Your task to perform on an android device: Is it going to rain this weekend? Image 0: 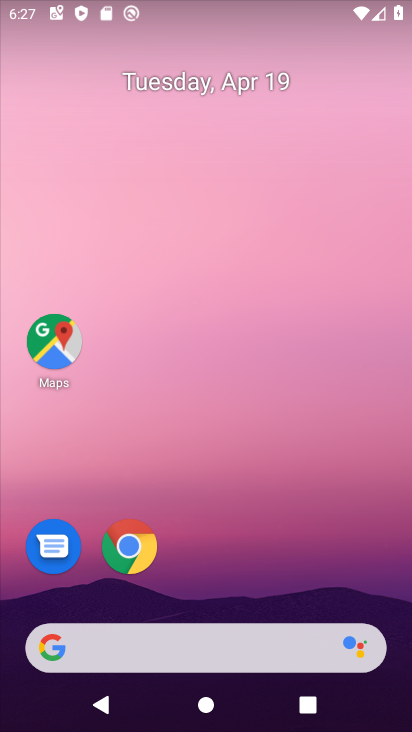
Step 0: drag from (270, 597) to (278, 133)
Your task to perform on an android device: Is it going to rain this weekend? Image 1: 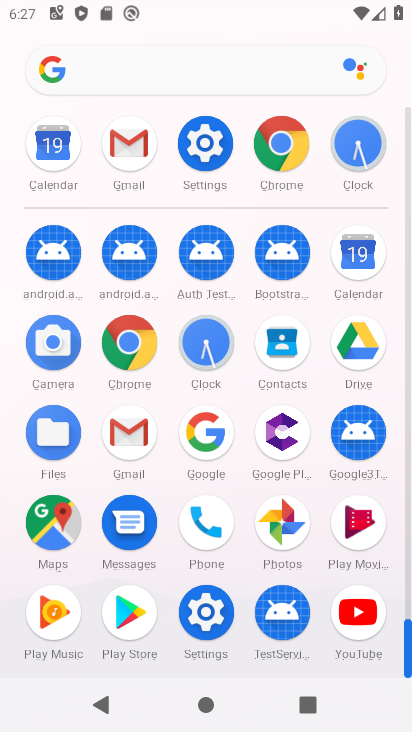
Step 1: click (137, 331)
Your task to perform on an android device: Is it going to rain this weekend? Image 2: 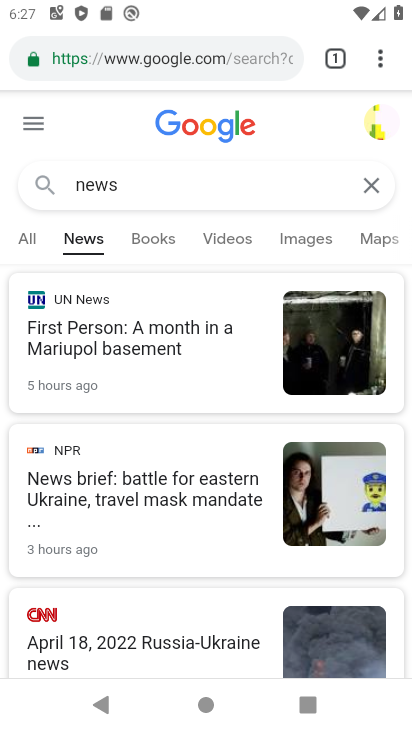
Step 2: click (263, 181)
Your task to perform on an android device: Is it going to rain this weekend? Image 3: 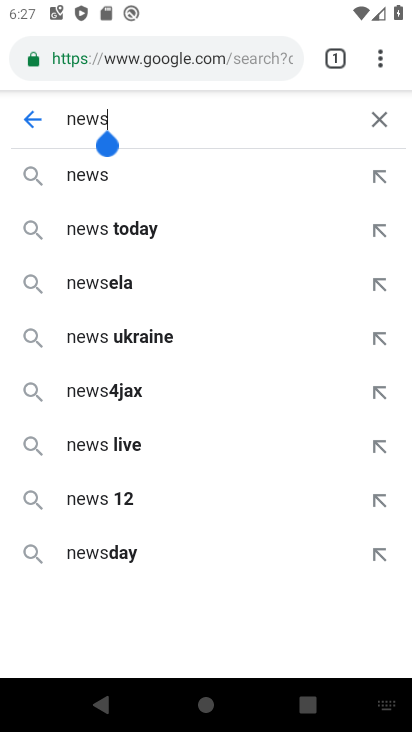
Step 3: click (377, 121)
Your task to perform on an android device: Is it going to rain this weekend? Image 4: 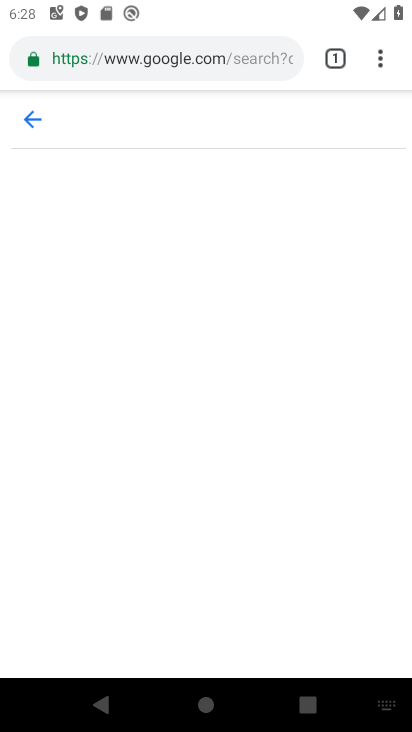
Step 4: type "weather"
Your task to perform on an android device: Is it going to rain this weekend? Image 5: 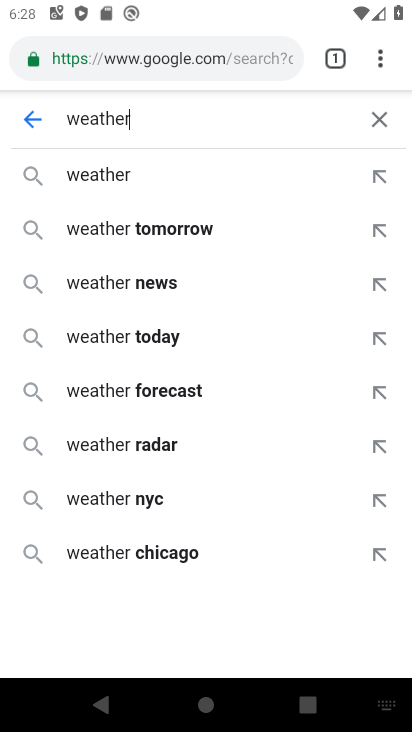
Step 5: click (181, 168)
Your task to perform on an android device: Is it going to rain this weekend? Image 6: 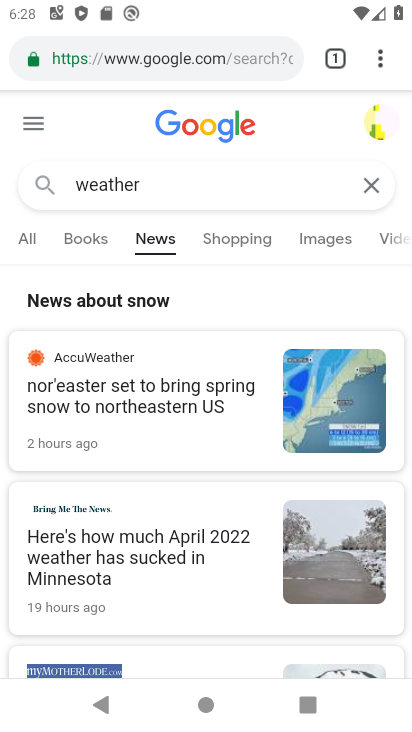
Step 6: click (32, 238)
Your task to perform on an android device: Is it going to rain this weekend? Image 7: 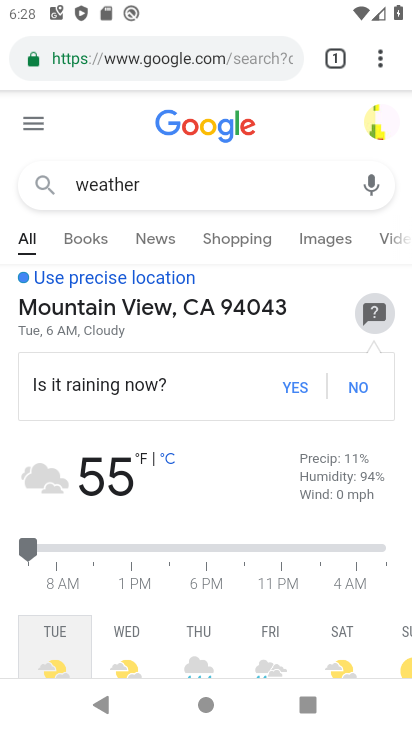
Step 7: task complete